Your task to perform on an android device: check storage Image 0: 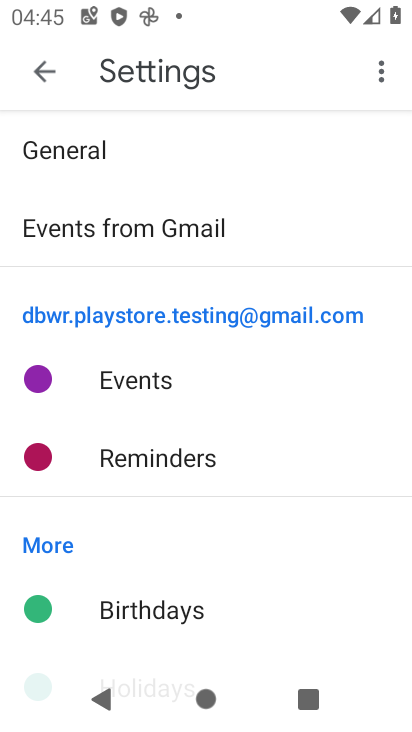
Step 0: press home button
Your task to perform on an android device: check storage Image 1: 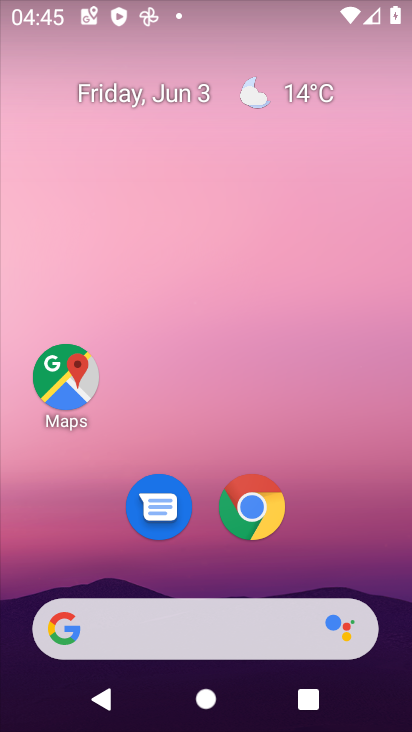
Step 1: drag from (360, 556) to (303, 186)
Your task to perform on an android device: check storage Image 2: 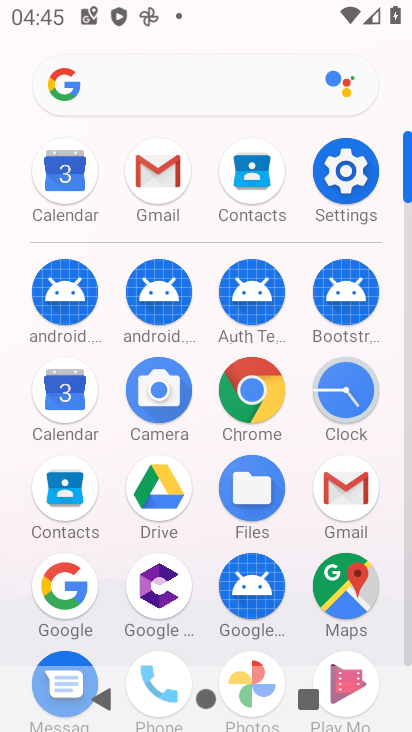
Step 2: click (340, 184)
Your task to perform on an android device: check storage Image 3: 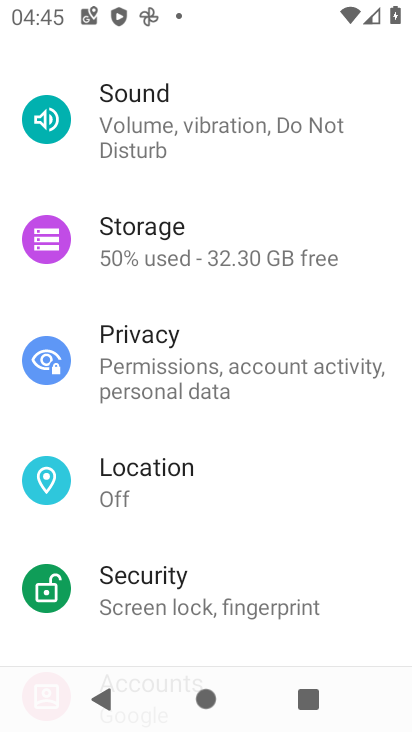
Step 3: click (243, 212)
Your task to perform on an android device: check storage Image 4: 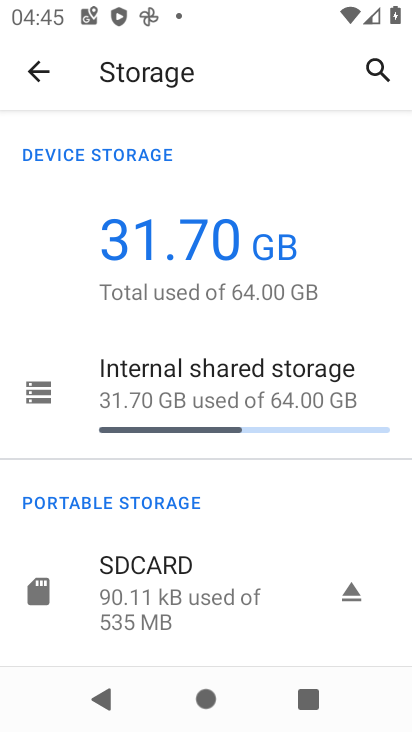
Step 4: task complete